Your task to perform on an android device: Find coffee shops on Maps Image 0: 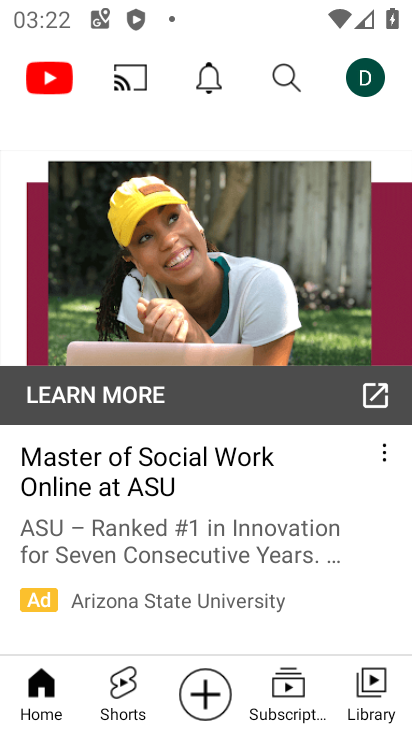
Step 0: press home button
Your task to perform on an android device: Find coffee shops on Maps Image 1: 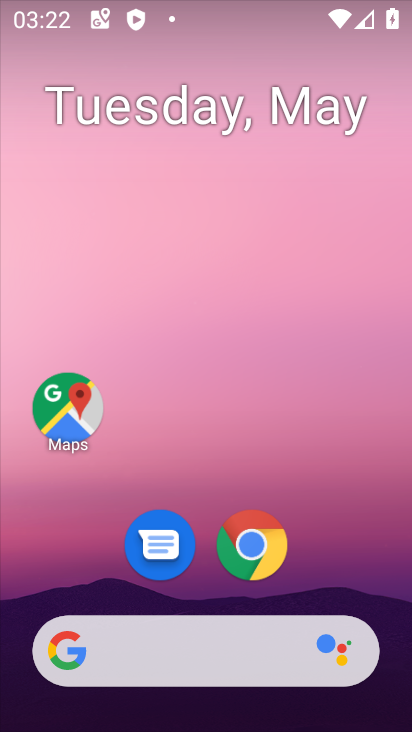
Step 1: click (69, 411)
Your task to perform on an android device: Find coffee shops on Maps Image 2: 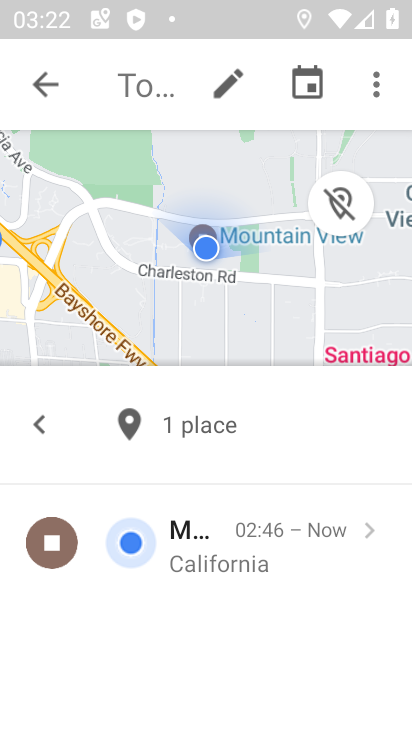
Step 2: press back button
Your task to perform on an android device: Find coffee shops on Maps Image 3: 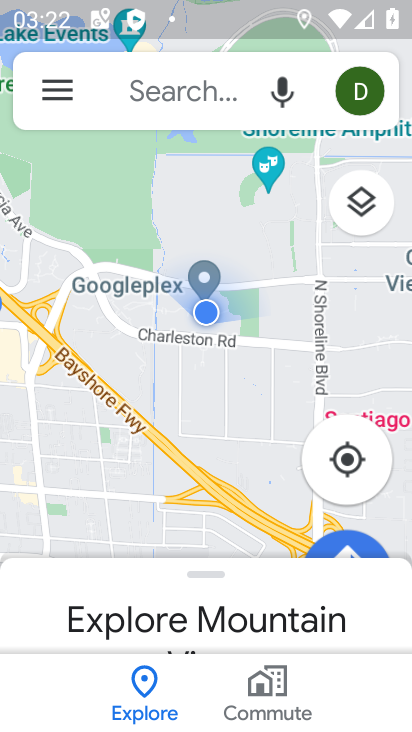
Step 3: click (186, 87)
Your task to perform on an android device: Find coffee shops on Maps Image 4: 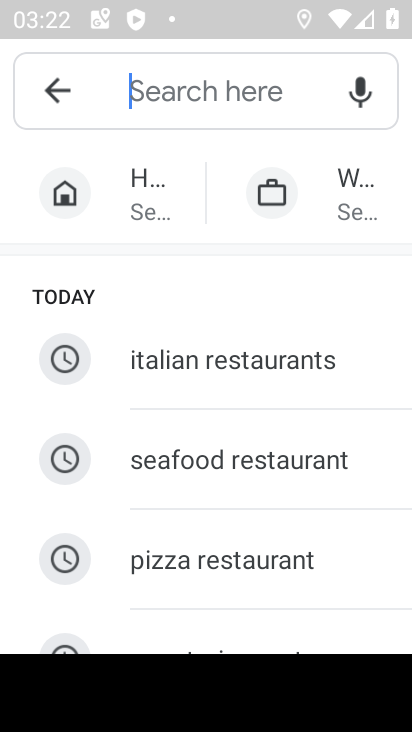
Step 4: type "coffeee"
Your task to perform on an android device: Find coffee shops on Maps Image 5: 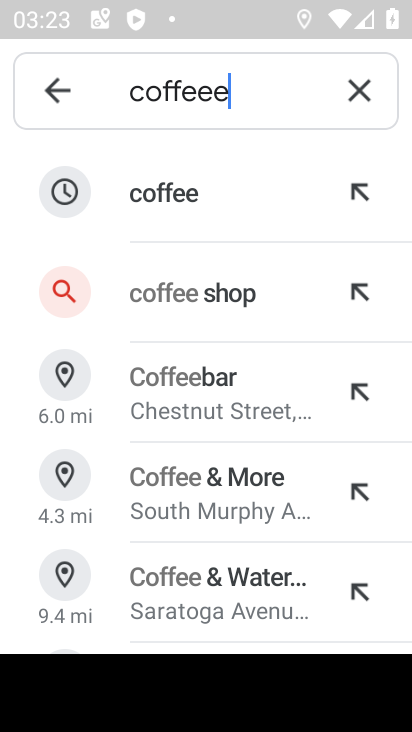
Step 5: click (199, 289)
Your task to perform on an android device: Find coffee shops on Maps Image 6: 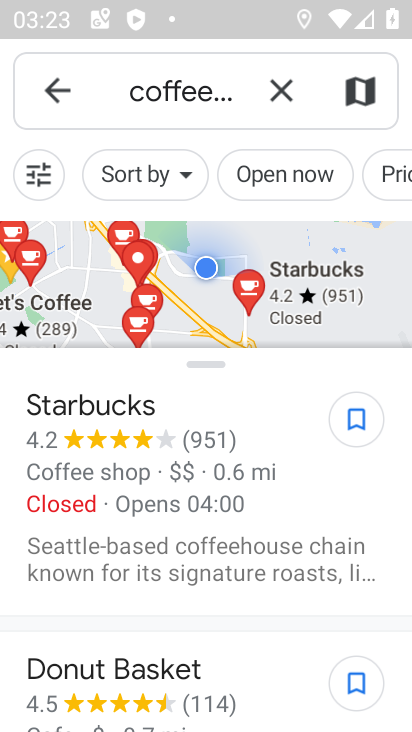
Step 6: task complete